Your task to perform on an android device: turn off wifi Image 0: 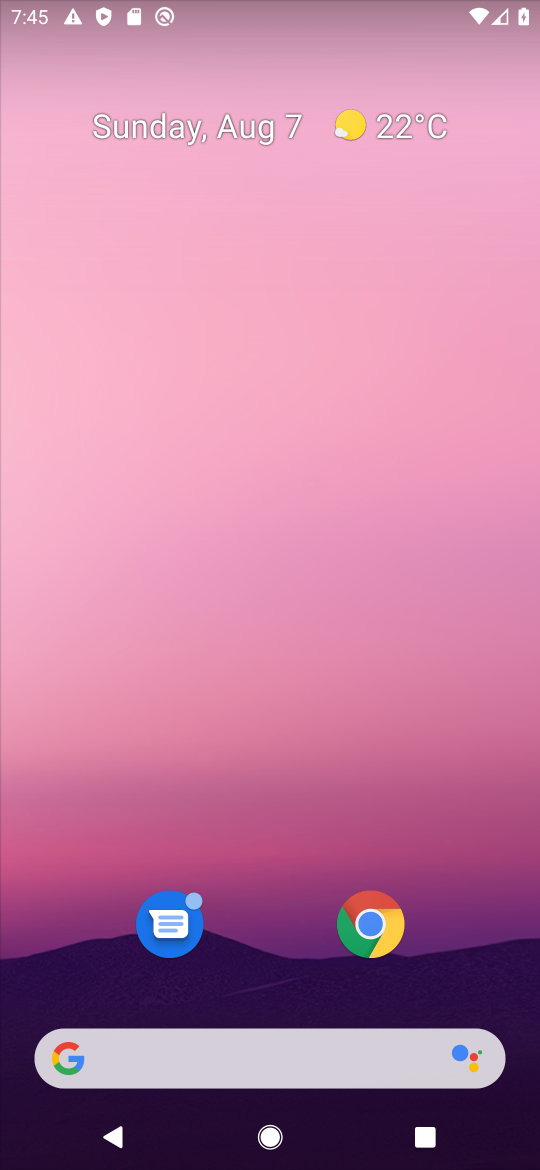
Step 0: drag from (300, 855) to (348, 0)
Your task to perform on an android device: turn off wifi Image 1: 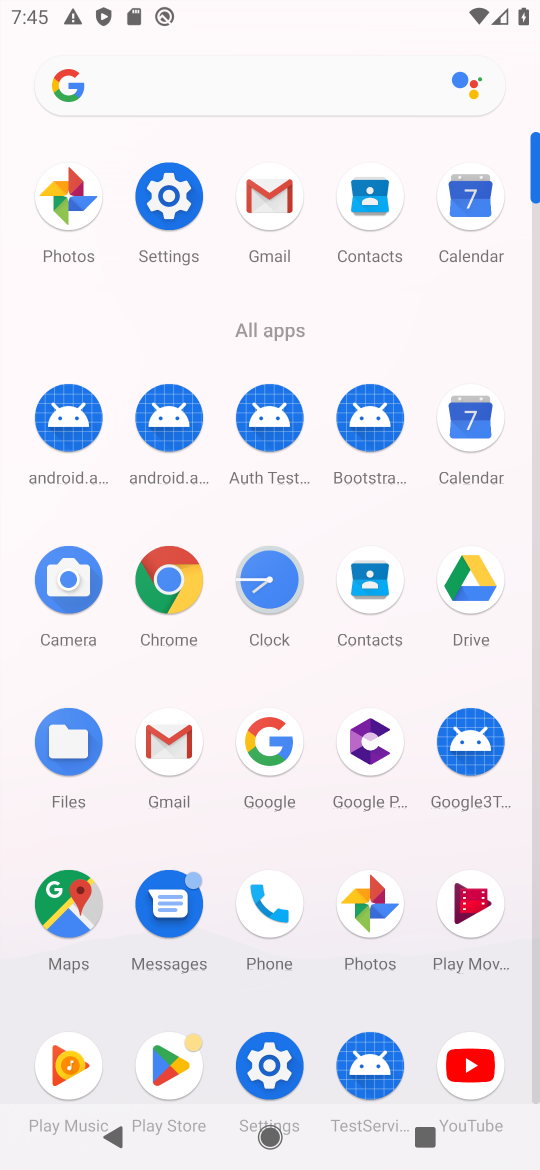
Step 1: click (171, 199)
Your task to perform on an android device: turn off wifi Image 2: 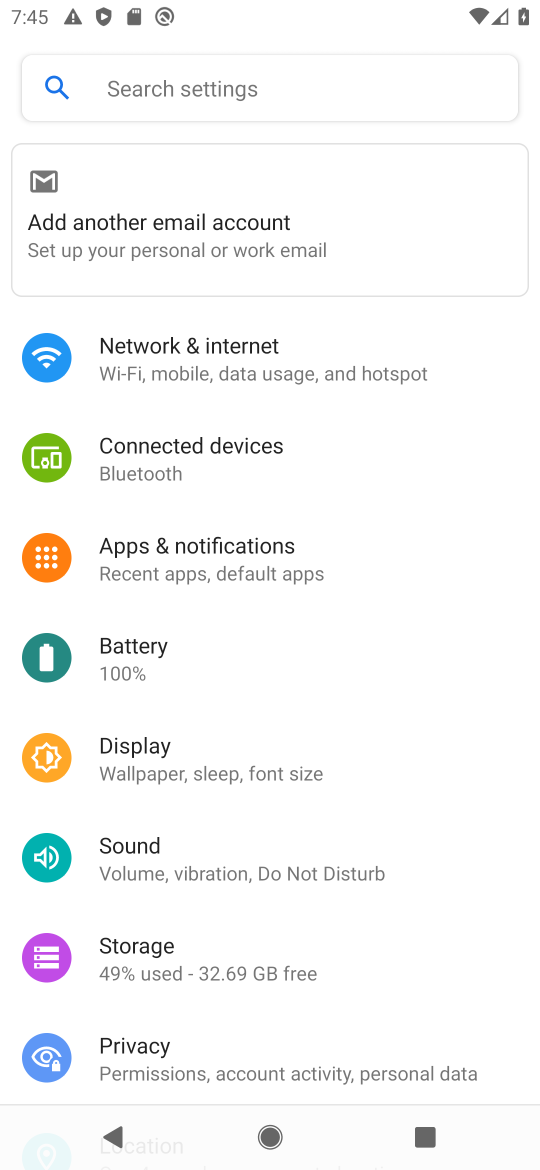
Step 2: click (193, 356)
Your task to perform on an android device: turn off wifi Image 3: 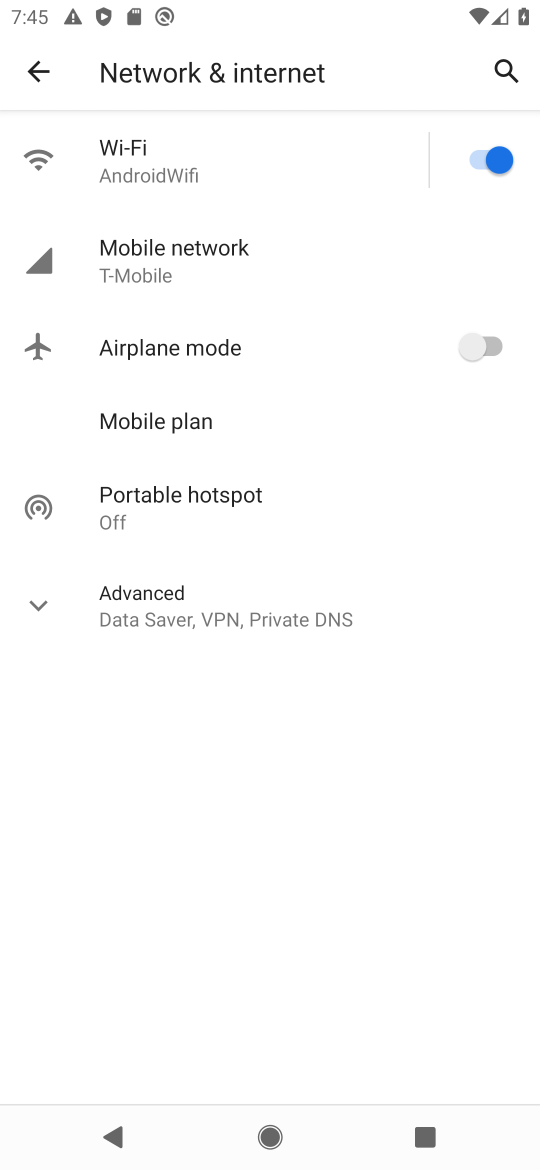
Step 3: click (481, 147)
Your task to perform on an android device: turn off wifi Image 4: 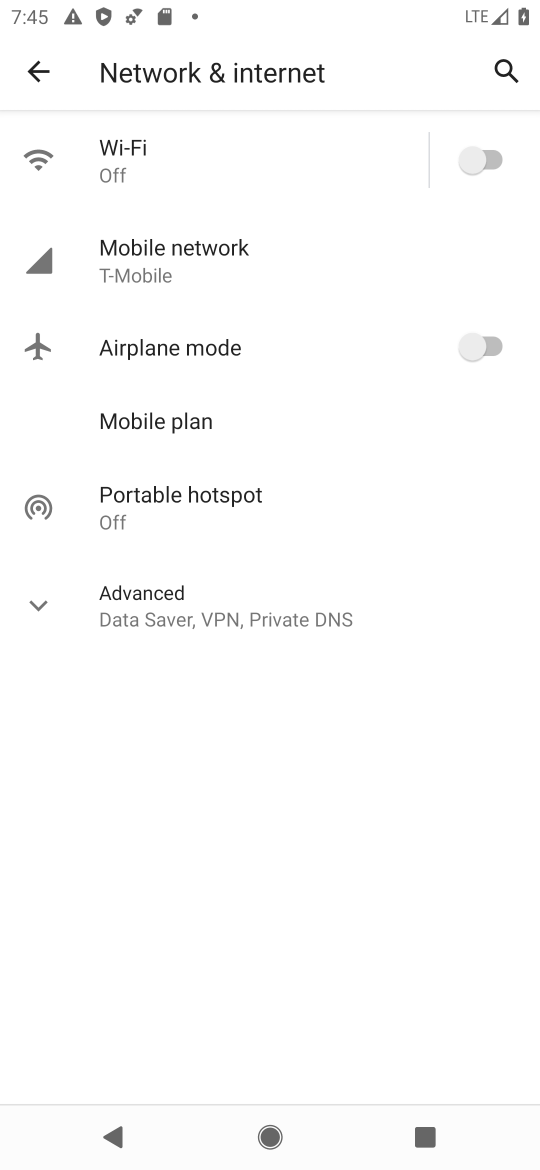
Step 4: task complete